Your task to perform on an android device: all mails in gmail Image 0: 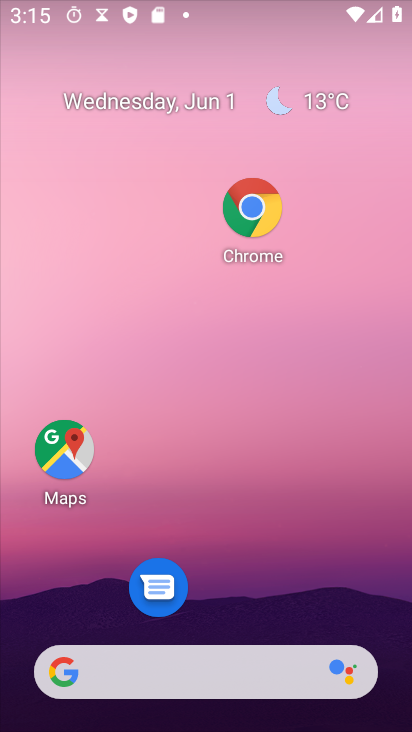
Step 0: drag from (285, 668) to (270, 133)
Your task to perform on an android device: all mails in gmail Image 1: 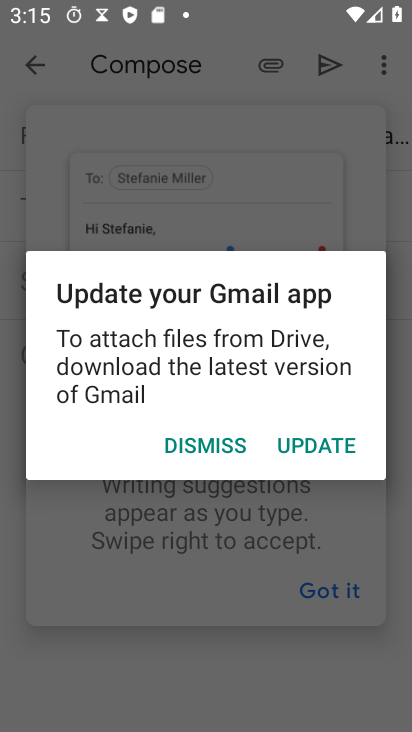
Step 1: click (229, 452)
Your task to perform on an android device: all mails in gmail Image 2: 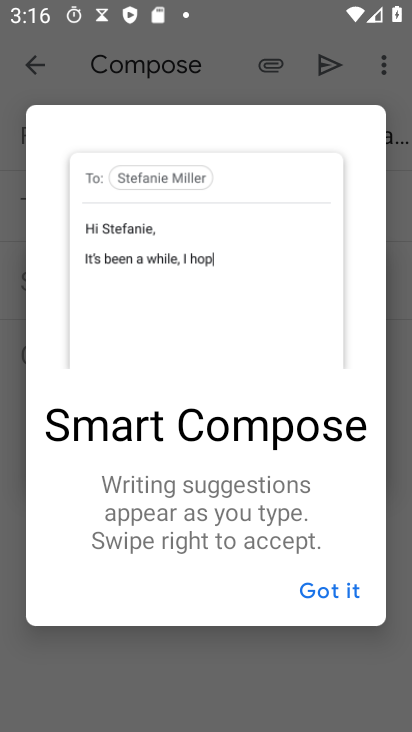
Step 2: click (347, 587)
Your task to perform on an android device: all mails in gmail Image 3: 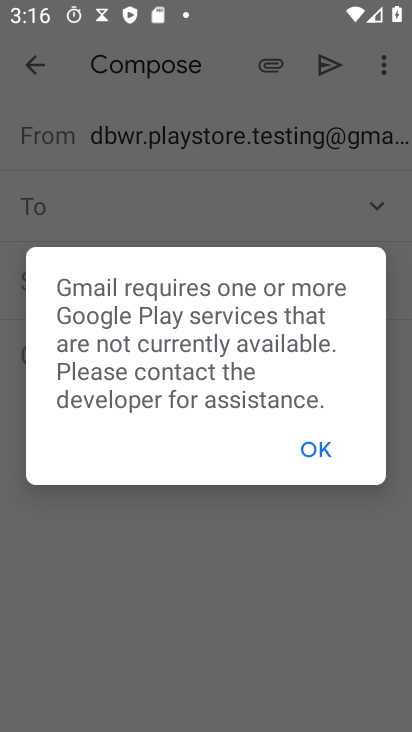
Step 3: click (311, 442)
Your task to perform on an android device: all mails in gmail Image 4: 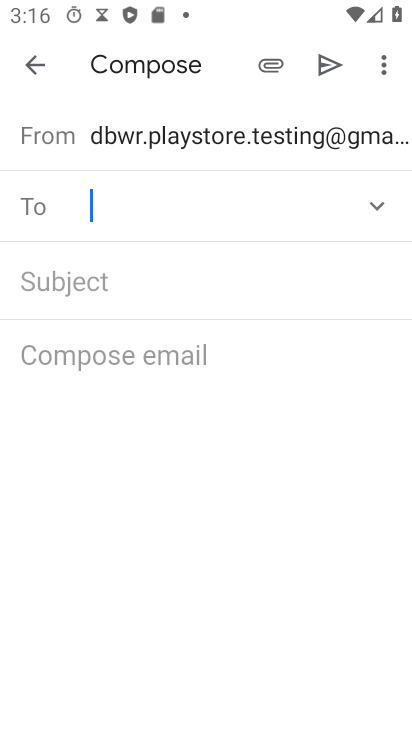
Step 4: click (24, 72)
Your task to perform on an android device: all mails in gmail Image 5: 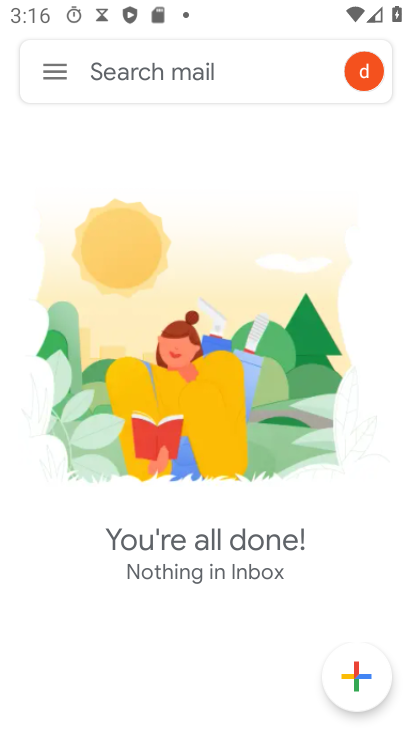
Step 5: click (44, 68)
Your task to perform on an android device: all mails in gmail Image 6: 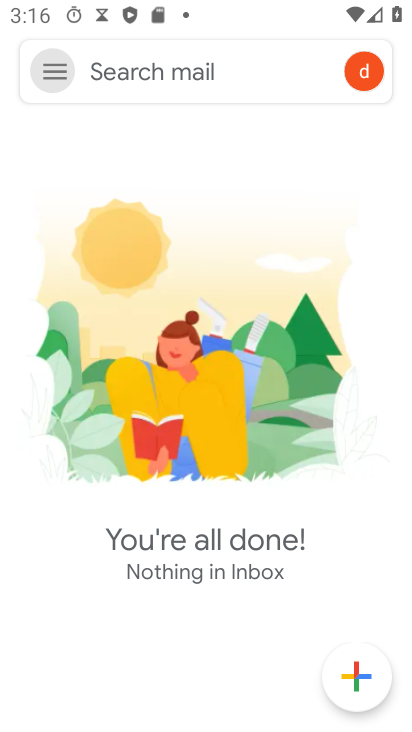
Step 6: click (50, 85)
Your task to perform on an android device: all mails in gmail Image 7: 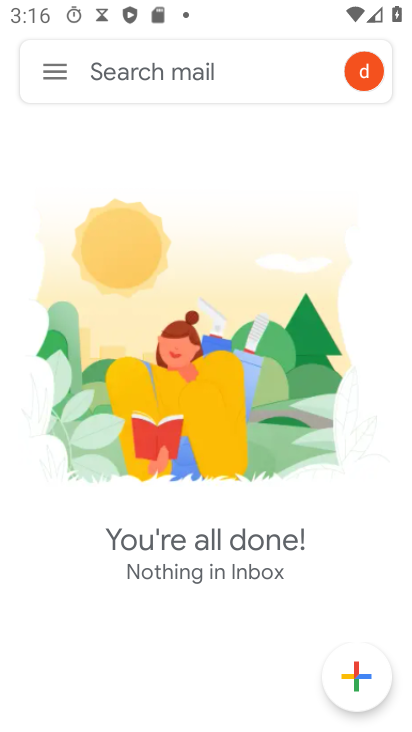
Step 7: click (48, 66)
Your task to perform on an android device: all mails in gmail Image 8: 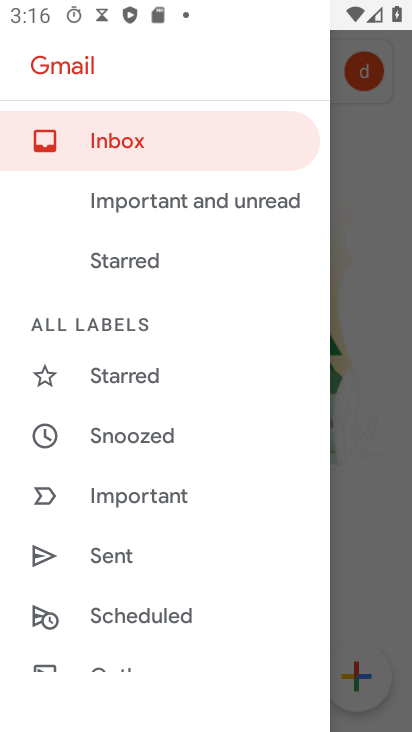
Step 8: drag from (130, 461) to (98, 256)
Your task to perform on an android device: all mails in gmail Image 9: 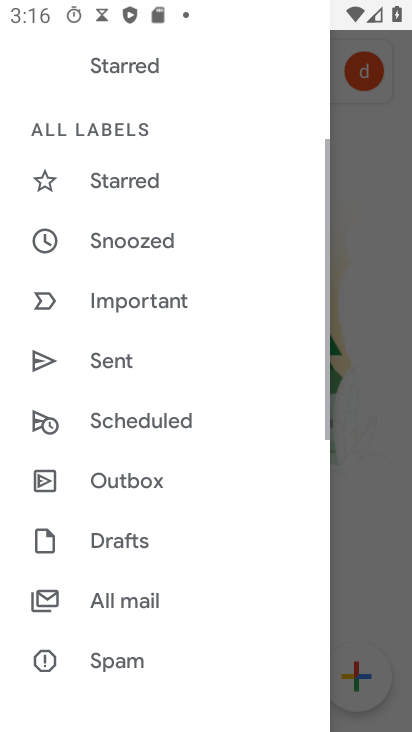
Step 9: drag from (205, 489) to (122, 252)
Your task to perform on an android device: all mails in gmail Image 10: 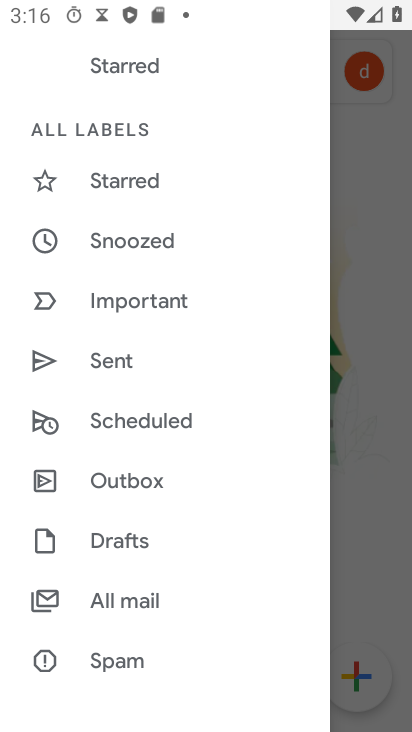
Step 10: click (128, 601)
Your task to perform on an android device: all mails in gmail Image 11: 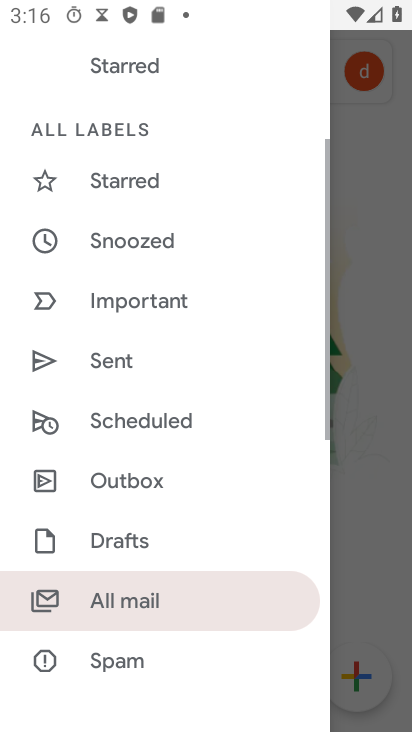
Step 11: click (124, 601)
Your task to perform on an android device: all mails in gmail Image 12: 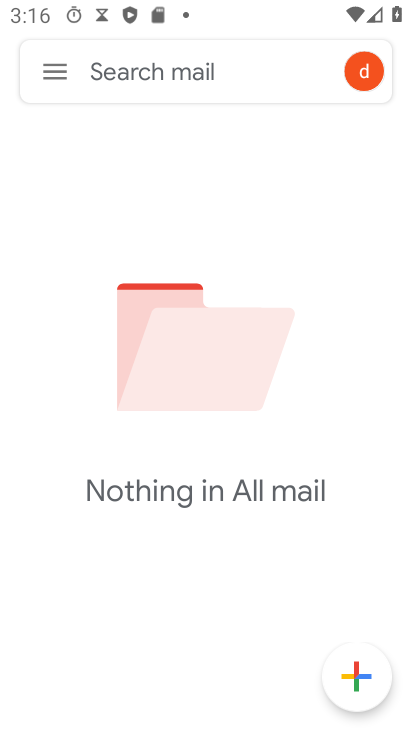
Step 12: task complete